Your task to perform on an android device: visit the assistant section in the google photos Image 0: 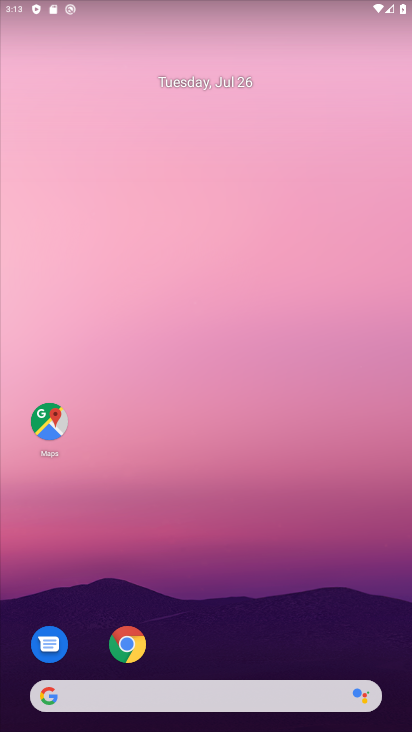
Step 0: drag from (270, 666) to (256, 142)
Your task to perform on an android device: visit the assistant section in the google photos Image 1: 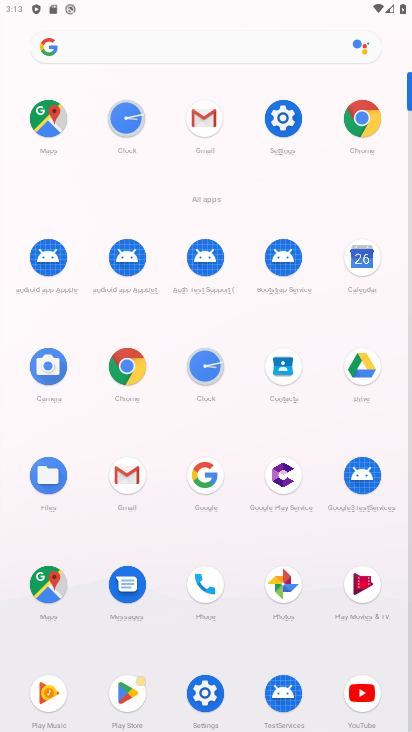
Step 1: click (290, 585)
Your task to perform on an android device: visit the assistant section in the google photos Image 2: 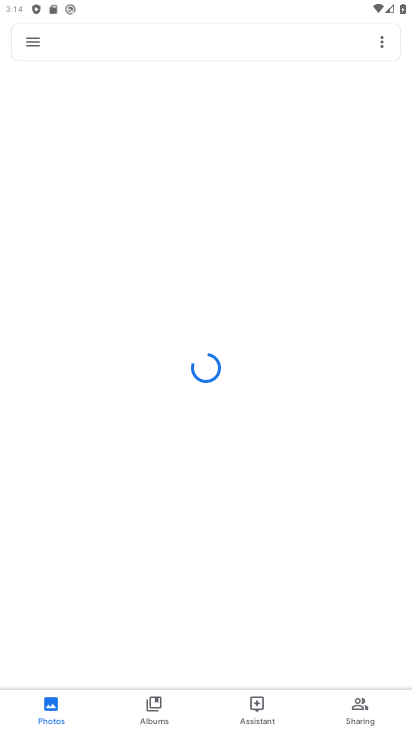
Step 2: click (253, 697)
Your task to perform on an android device: visit the assistant section in the google photos Image 3: 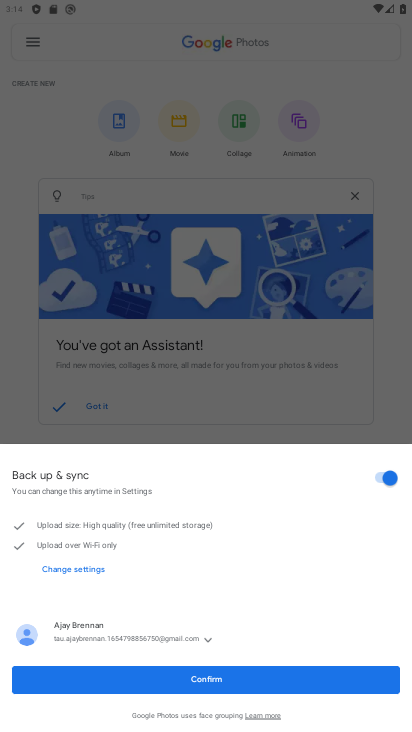
Step 3: click (268, 674)
Your task to perform on an android device: visit the assistant section in the google photos Image 4: 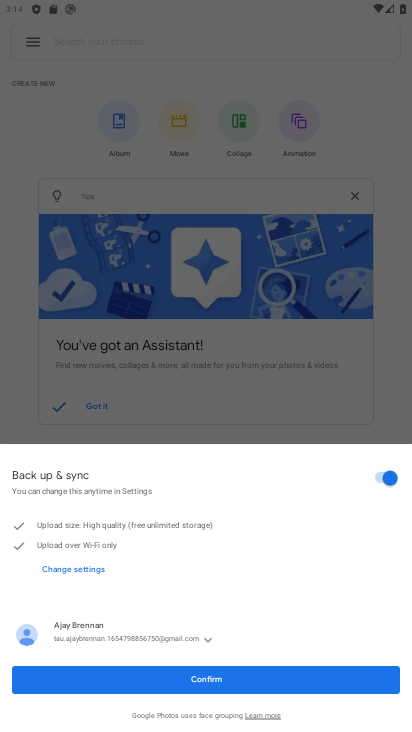
Step 4: click (209, 686)
Your task to perform on an android device: visit the assistant section in the google photos Image 5: 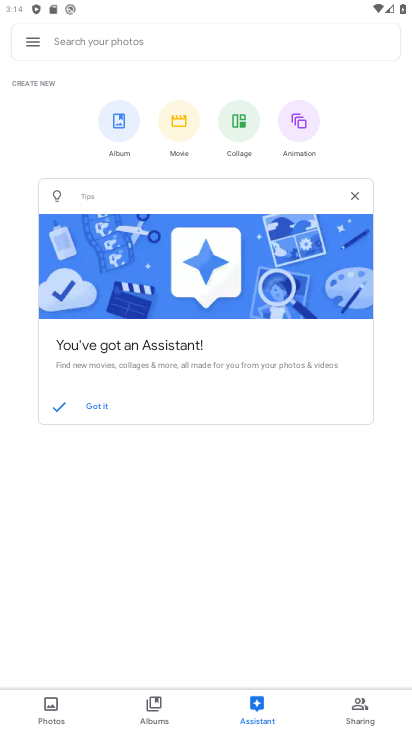
Step 5: task complete